Your task to perform on an android device: turn on translation in the chrome app Image 0: 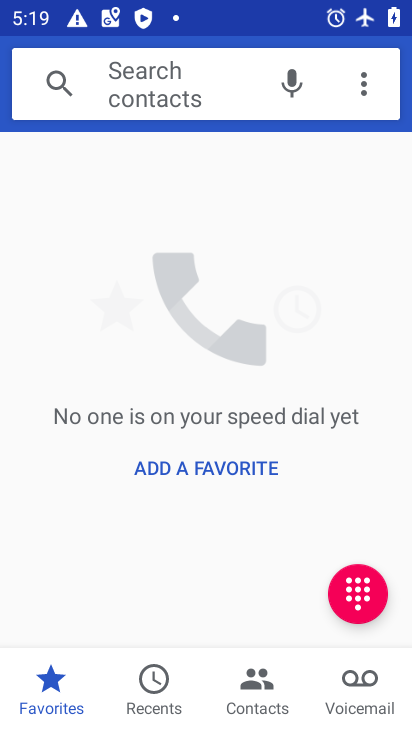
Step 0: drag from (137, 624) to (218, 625)
Your task to perform on an android device: turn on translation in the chrome app Image 1: 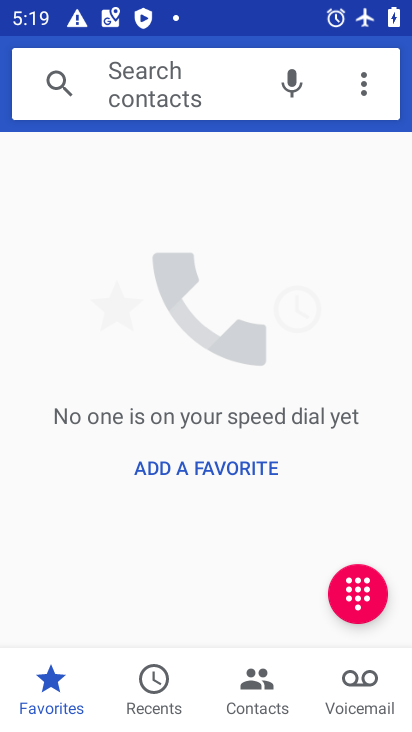
Step 1: press home button
Your task to perform on an android device: turn on translation in the chrome app Image 2: 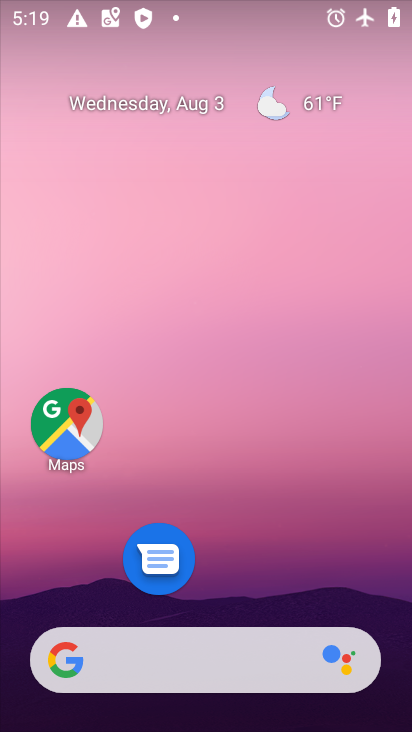
Step 2: drag from (177, 645) to (202, 328)
Your task to perform on an android device: turn on translation in the chrome app Image 3: 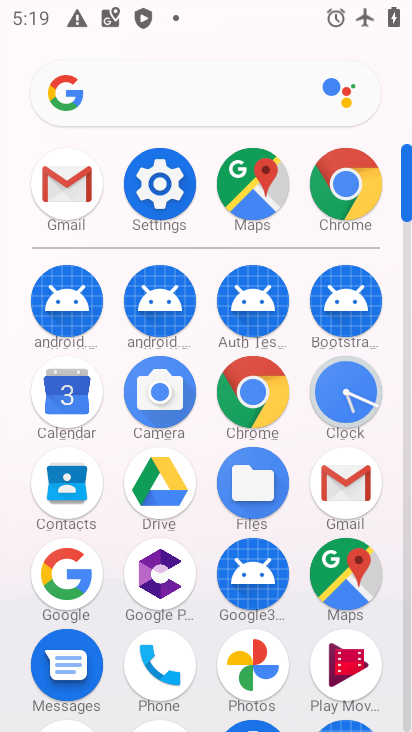
Step 3: click (260, 404)
Your task to perform on an android device: turn on translation in the chrome app Image 4: 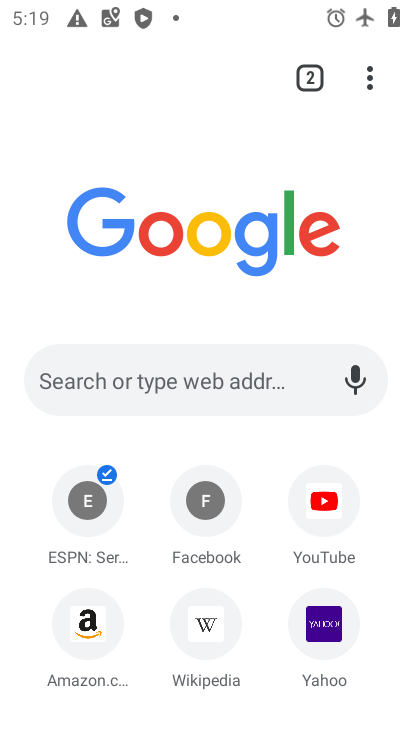
Step 4: click (369, 70)
Your task to perform on an android device: turn on translation in the chrome app Image 5: 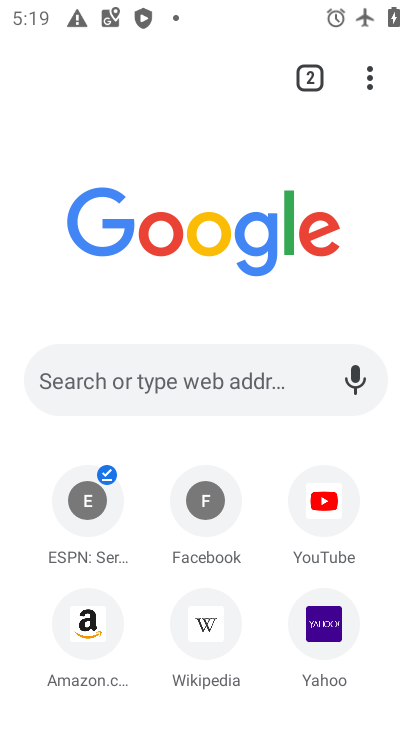
Step 5: click (368, 77)
Your task to perform on an android device: turn on translation in the chrome app Image 6: 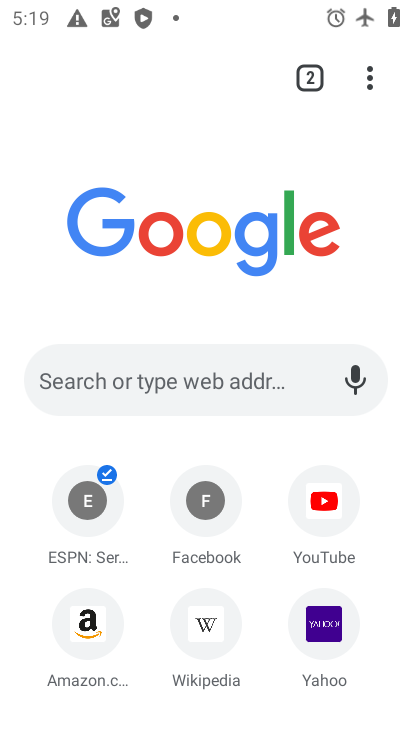
Step 6: click (364, 77)
Your task to perform on an android device: turn on translation in the chrome app Image 7: 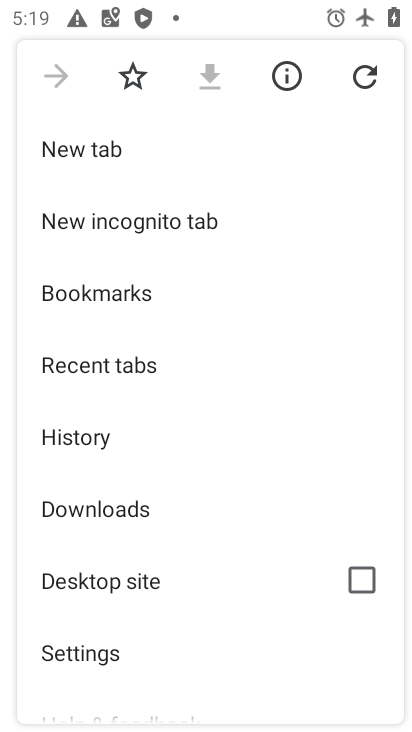
Step 7: click (89, 660)
Your task to perform on an android device: turn on translation in the chrome app Image 8: 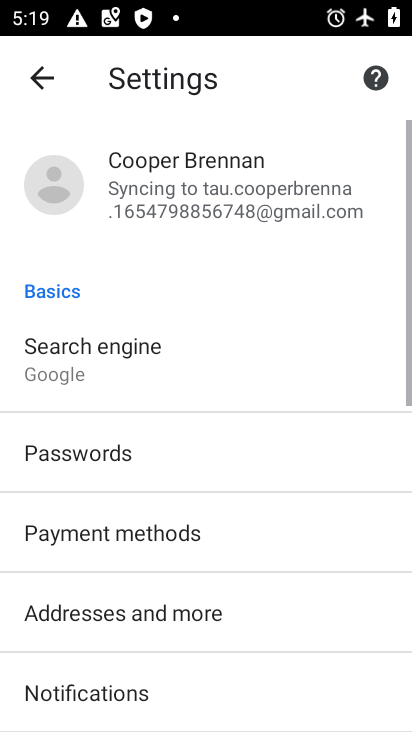
Step 8: drag from (127, 692) to (133, 281)
Your task to perform on an android device: turn on translation in the chrome app Image 9: 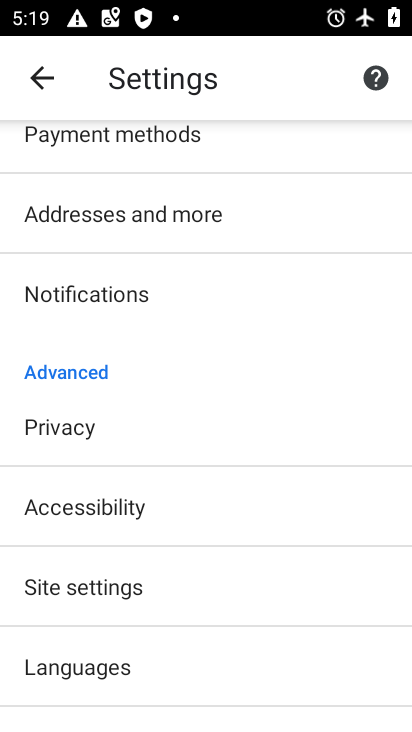
Step 9: click (54, 681)
Your task to perform on an android device: turn on translation in the chrome app Image 10: 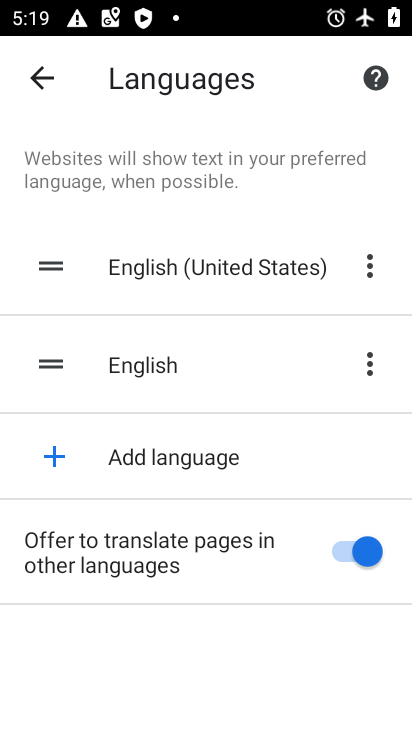
Step 10: task complete